Your task to perform on an android device: Open the map Image 0: 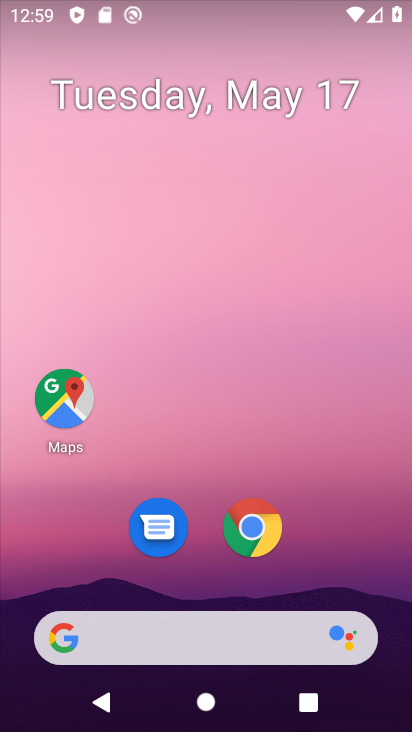
Step 0: click (82, 403)
Your task to perform on an android device: Open the map Image 1: 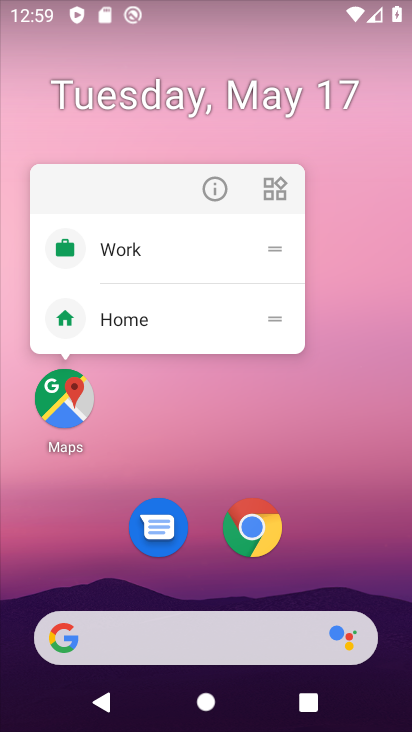
Step 1: click (82, 403)
Your task to perform on an android device: Open the map Image 2: 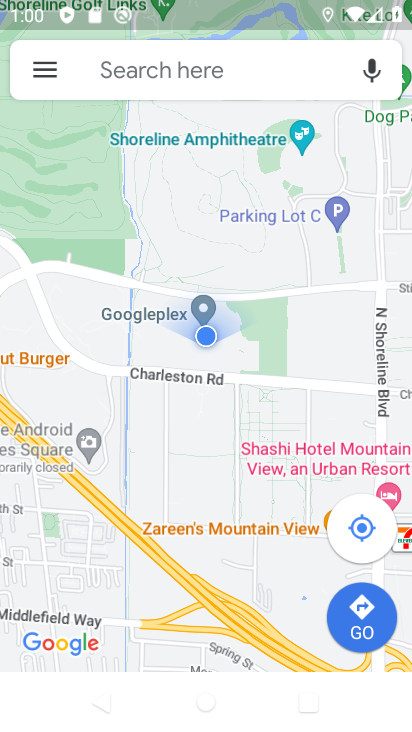
Step 2: task complete